Your task to perform on an android device: clear all cookies in the chrome app Image 0: 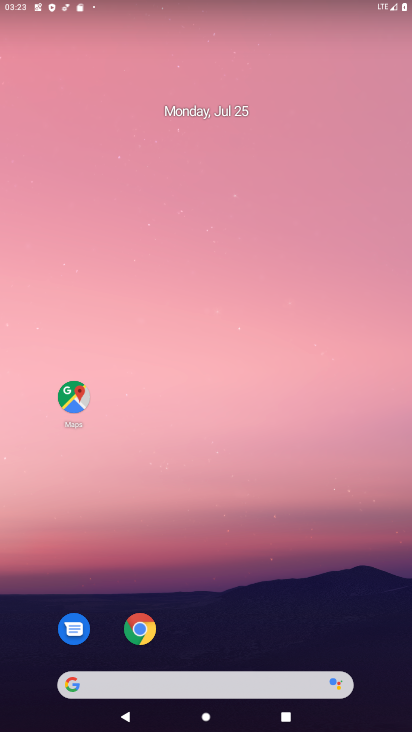
Step 0: click (134, 623)
Your task to perform on an android device: clear all cookies in the chrome app Image 1: 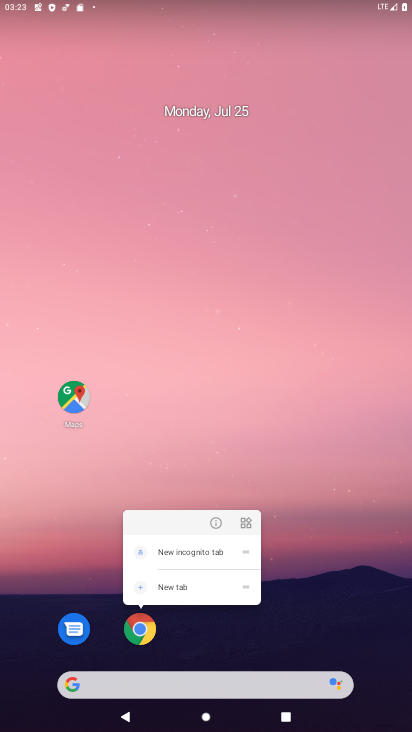
Step 1: click (136, 639)
Your task to perform on an android device: clear all cookies in the chrome app Image 2: 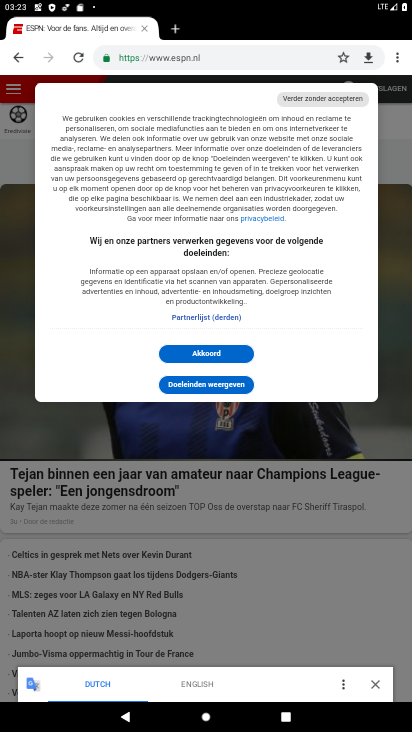
Step 2: click (398, 56)
Your task to perform on an android device: clear all cookies in the chrome app Image 3: 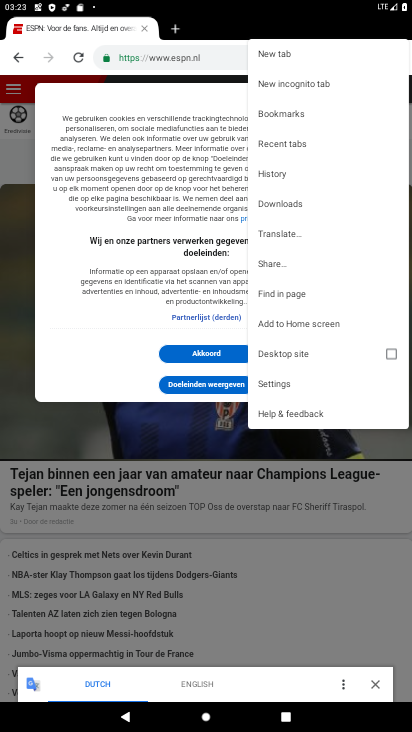
Step 3: click (282, 380)
Your task to perform on an android device: clear all cookies in the chrome app Image 4: 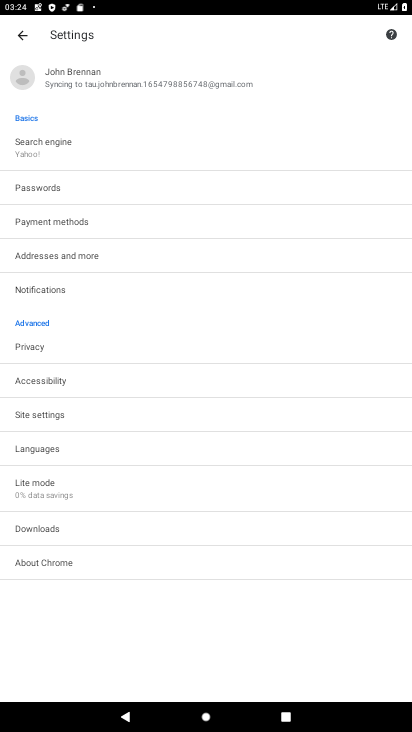
Step 4: click (23, 341)
Your task to perform on an android device: clear all cookies in the chrome app Image 5: 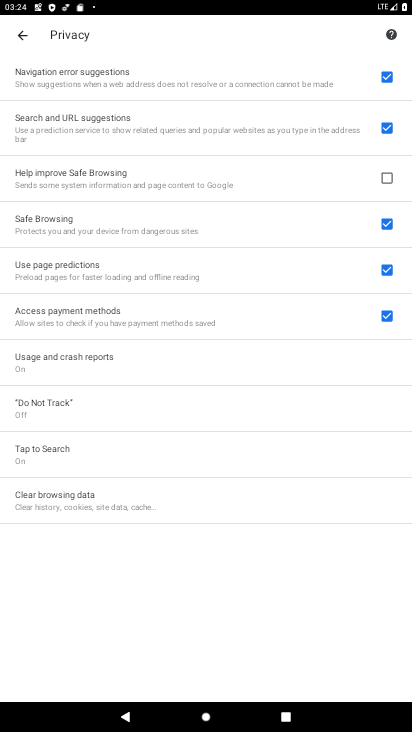
Step 5: click (46, 498)
Your task to perform on an android device: clear all cookies in the chrome app Image 6: 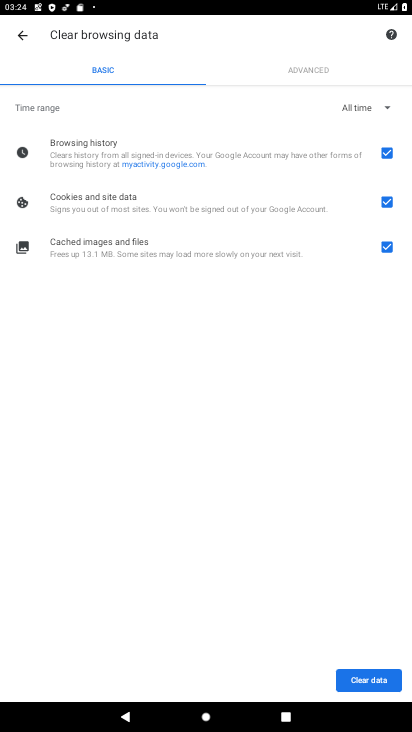
Step 6: click (386, 151)
Your task to perform on an android device: clear all cookies in the chrome app Image 7: 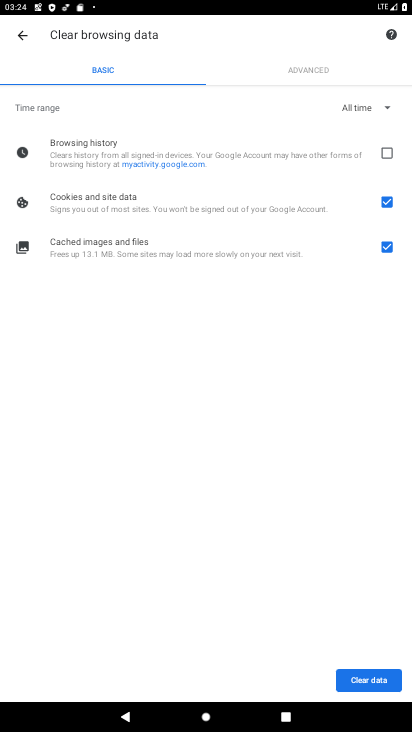
Step 7: click (394, 249)
Your task to perform on an android device: clear all cookies in the chrome app Image 8: 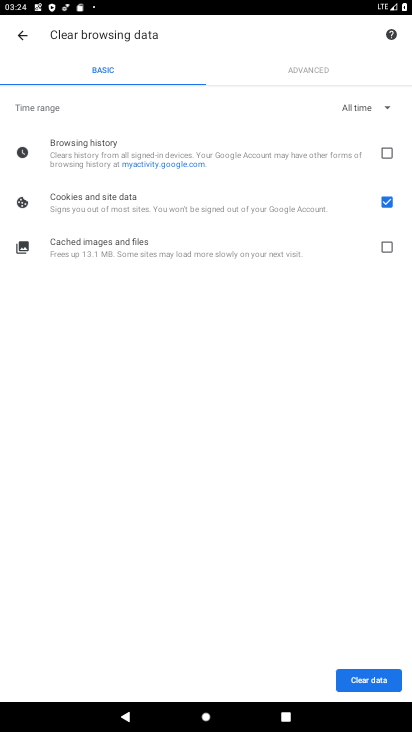
Step 8: click (372, 683)
Your task to perform on an android device: clear all cookies in the chrome app Image 9: 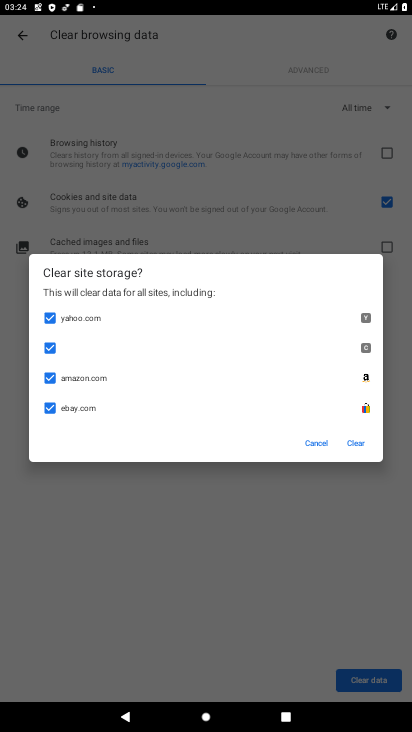
Step 9: click (357, 442)
Your task to perform on an android device: clear all cookies in the chrome app Image 10: 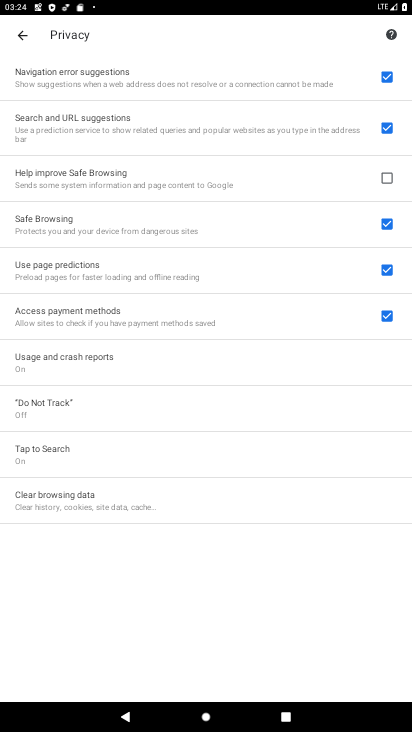
Step 10: task complete